Your task to perform on an android device: open chrome and create a bookmark for the current page Image 0: 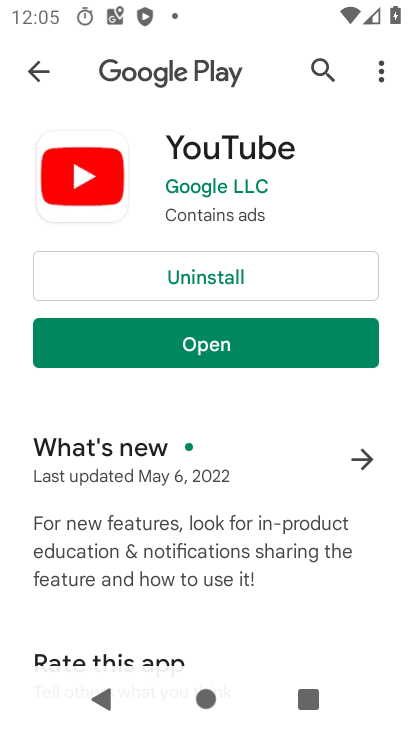
Step 0: press home button
Your task to perform on an android device: open chrome and create a bookmark for the current page Image 1: 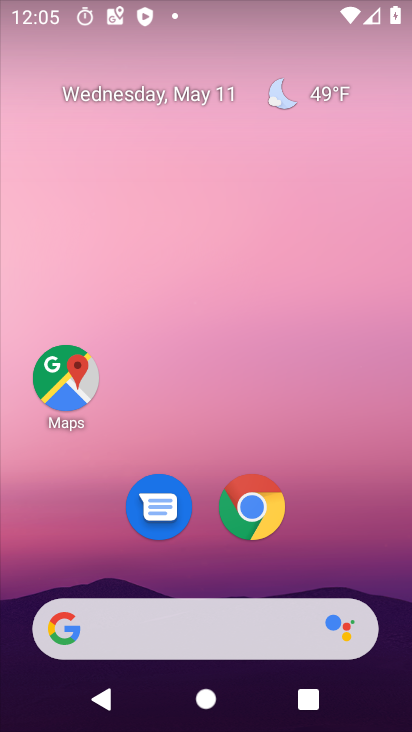
Step 1: click (251, 506)
Your task to perform on an android device: open chrome and create a bookmark for the current page Image 2: 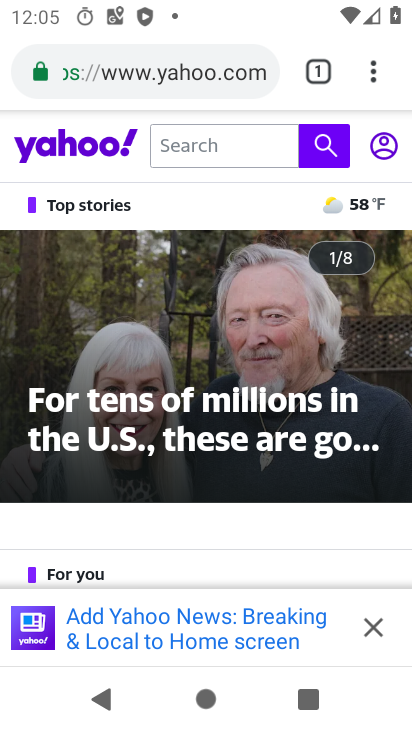
Step 2: click (365, 72)
Your task to perform on an android device: open chrome and create a bookmark for the current page Image 3: 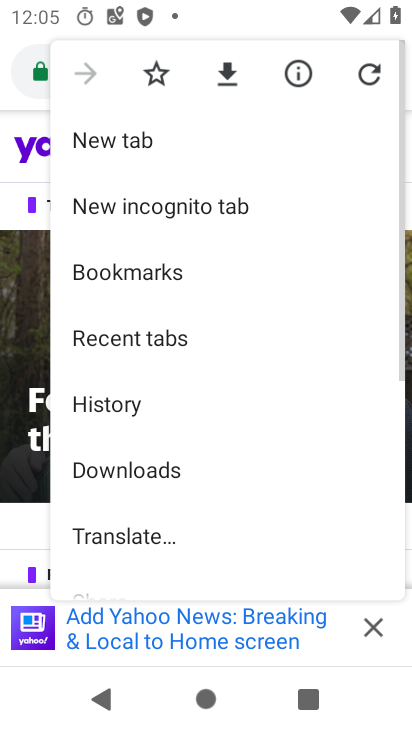
Step 3: click (150, 274)
Your task to perform on an android device: open chrome and create a bookmark for the current page Image 4: 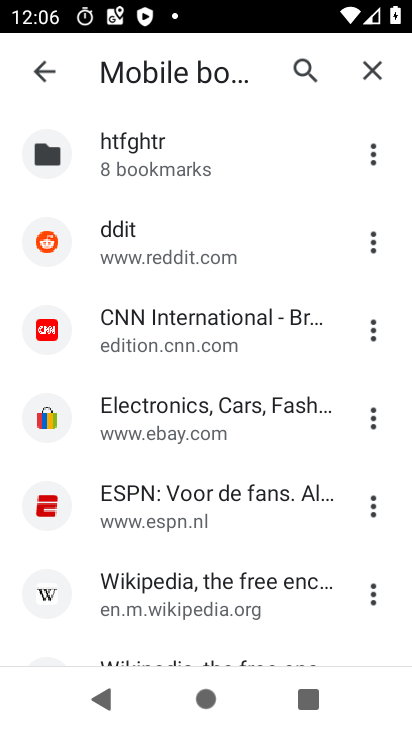
Step 4: press back button
Your task to perform on an android device: open chrome and create a bookmark for the current page Image 5: 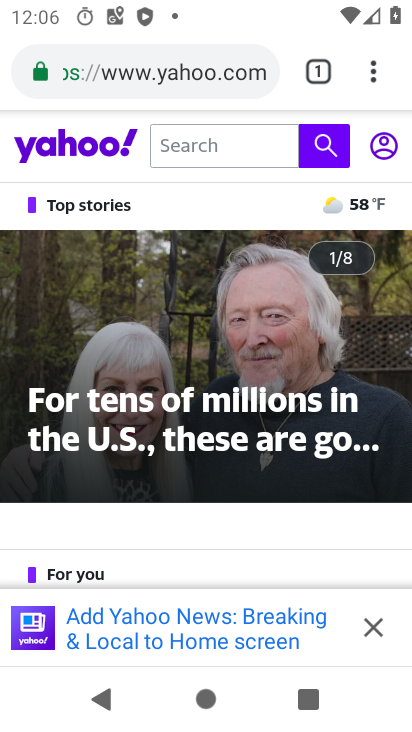
Step 5: click (371, 71)
Your task to perform on an android device: open chrome and create a bookmark for the current page Image 6: 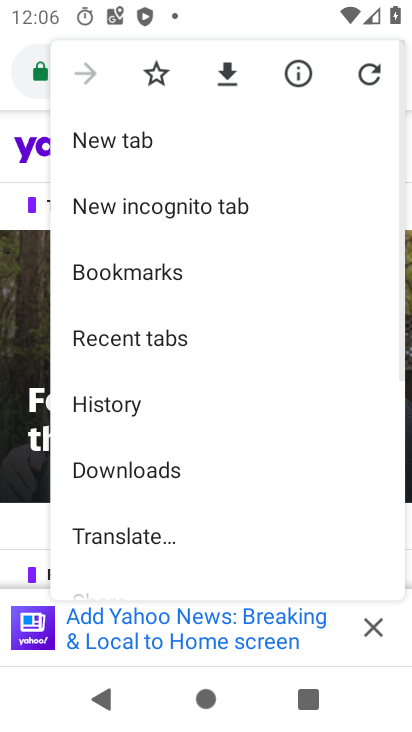
Step 6: click (158, 76)
Your task to perform on an android device: open chrome and create a bookmark for the current page Image 7: 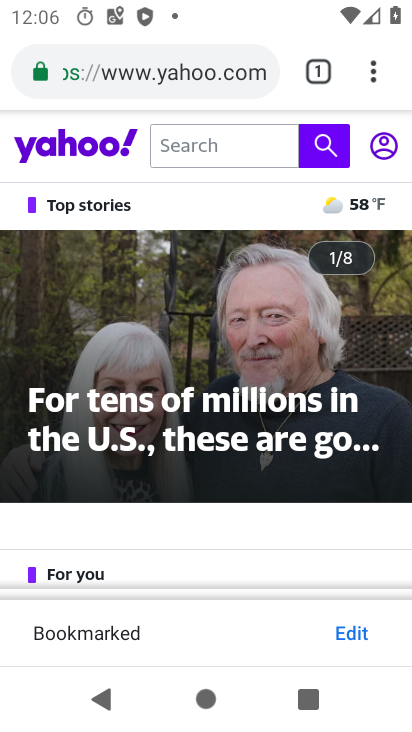
Step 7: task complete